Your task to perform on an android device: Open calendar and show me the second week of next month Image 0: 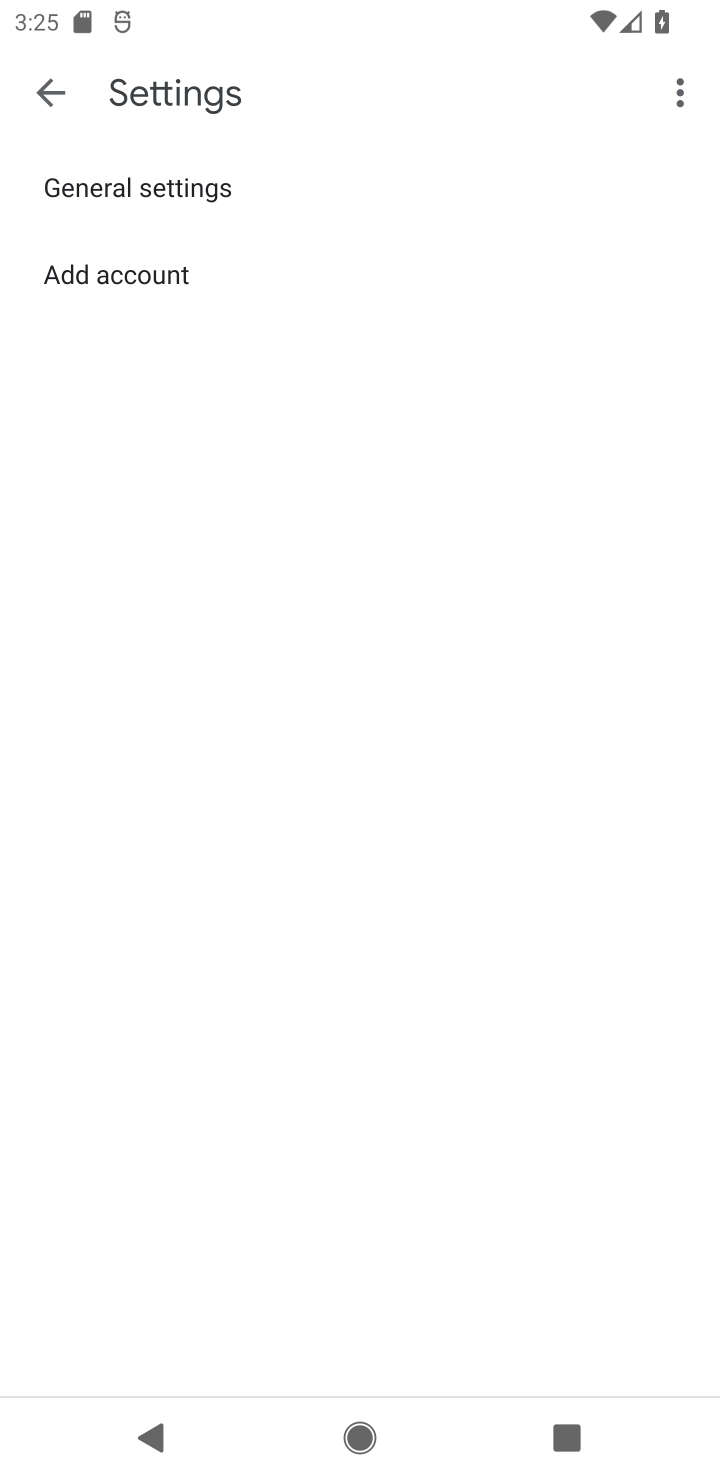
Step 0: task complete